Your task to perform on an android device: Open CNN.com Image 0: 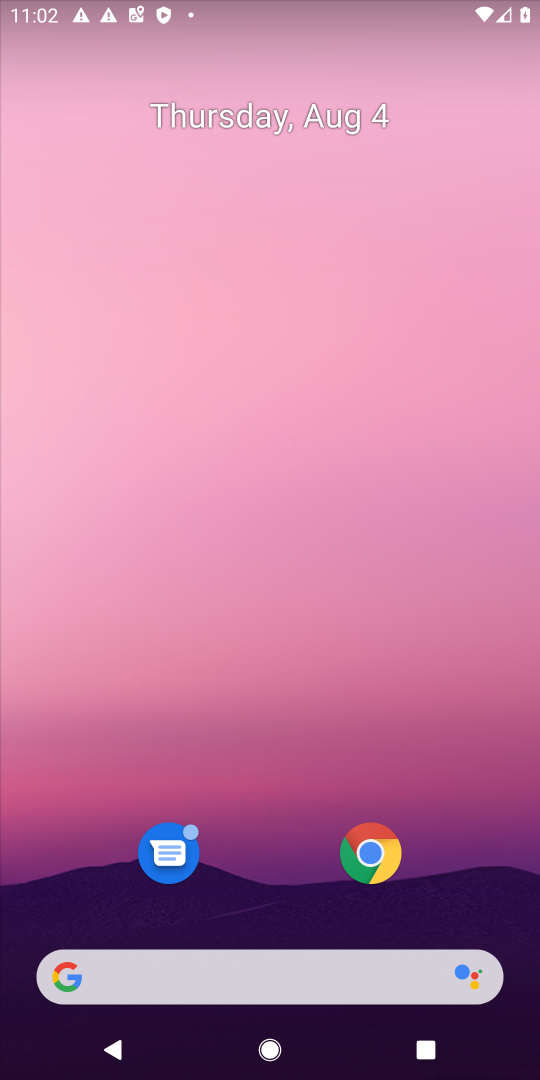
Step 0: drag from (457, 893) to (334, 56)
Your task to perform on an android device: Open CNN.com Image 1: 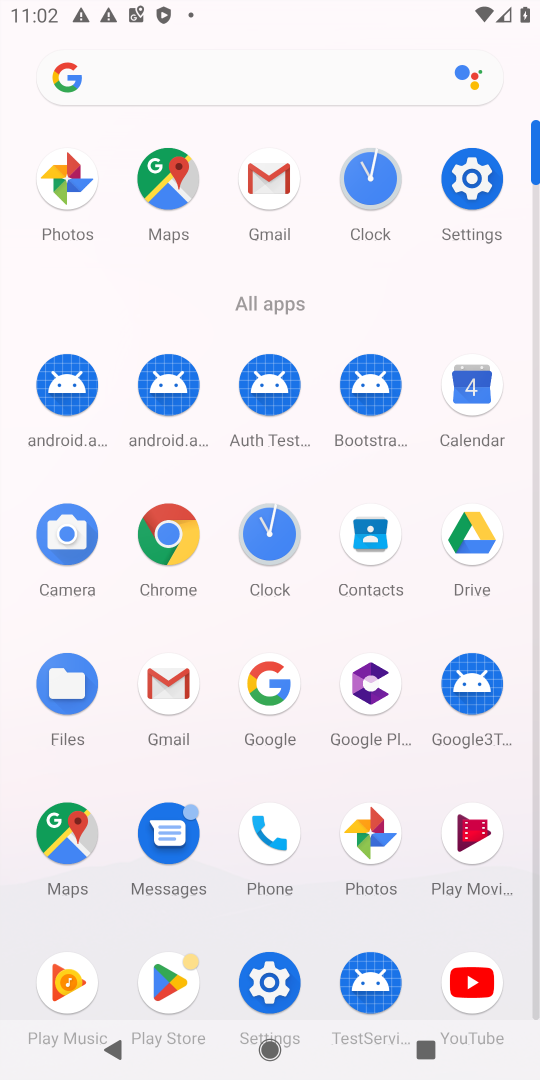
Step 1: click (171, 536)
Your task to perform on an android device: Open CNN.com Image 2: 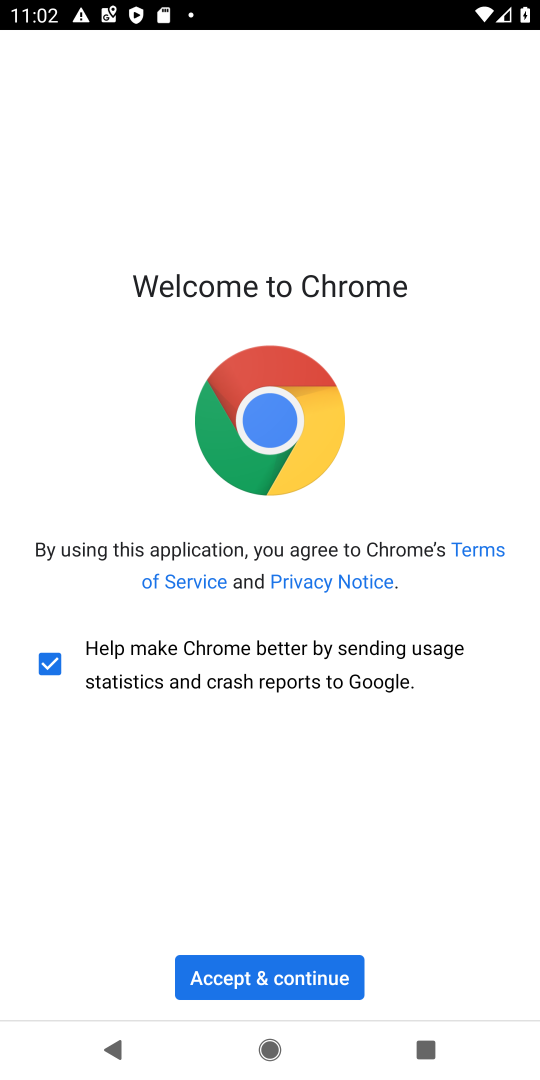
Step 2: click (227, 992)
Your task to perform on an android device: Open CNN.com Image 3: 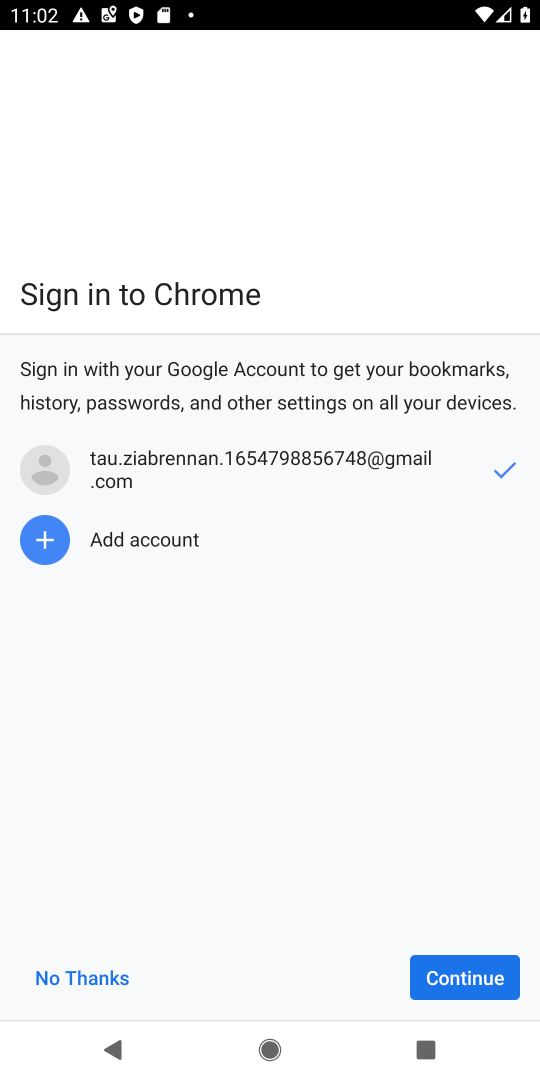
Step 3: click (442, 982)
Your task to perform on an android device: Open CNN.com Image 4: 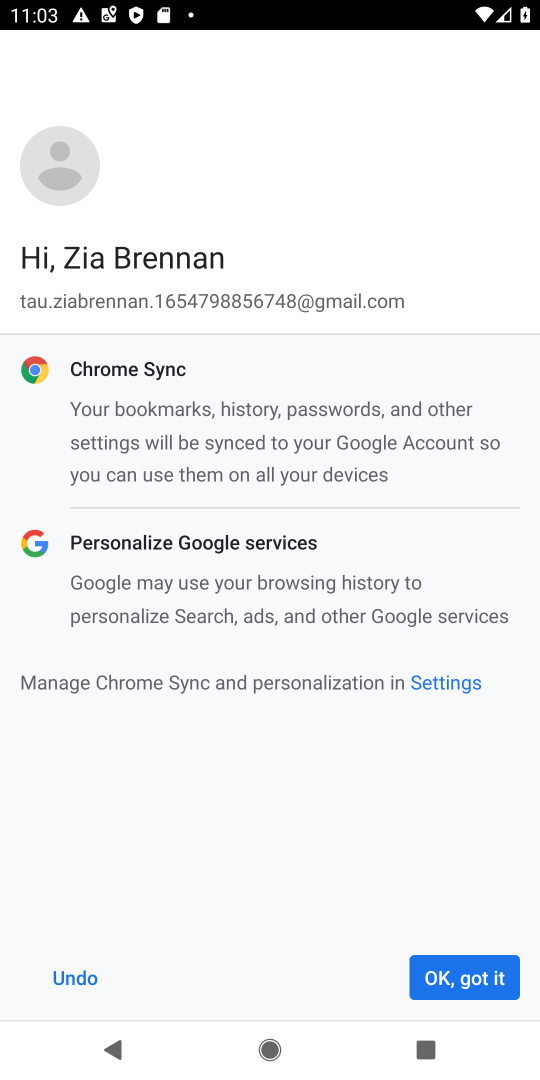
Step 4: click (442, 982)
Your task to perform on an android device: Open CNN.com Image 5: 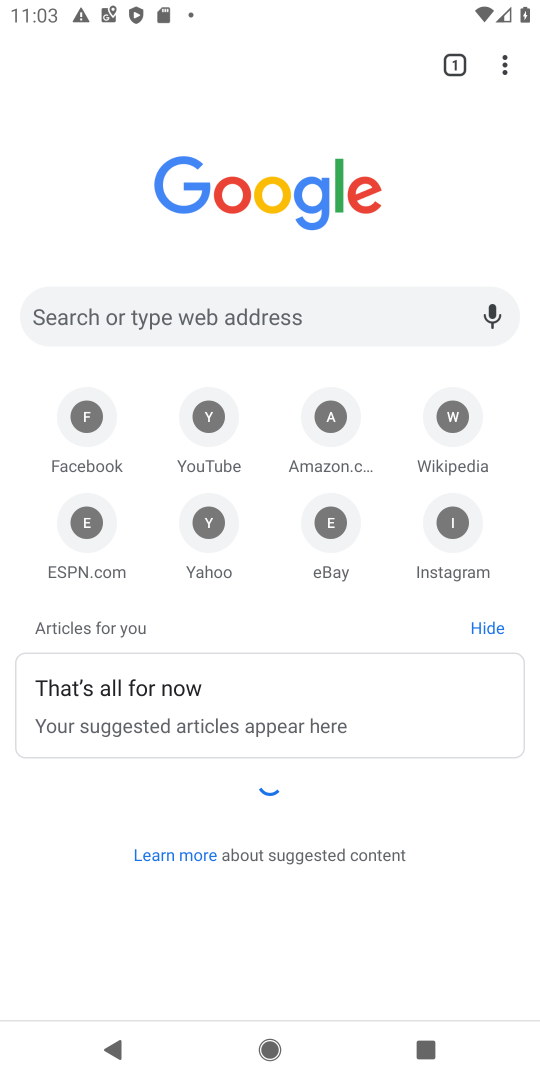
Step 5: click (442, 982)
Your task to perform on an android device: Open CNN.com Image 6: 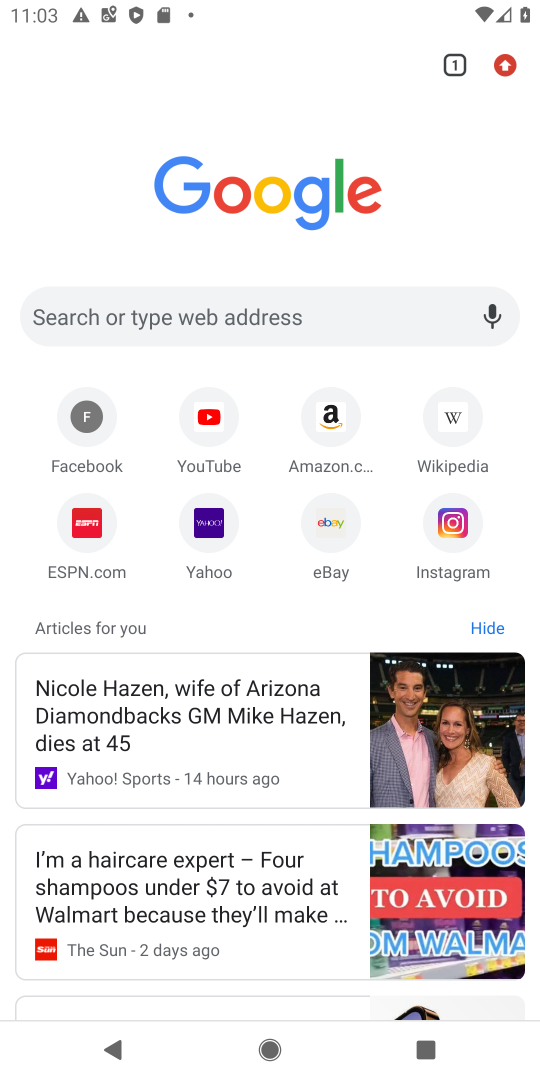
Step 6: click (304, 313)
Your task to perform on an android device: Open CNN.com Image 7: 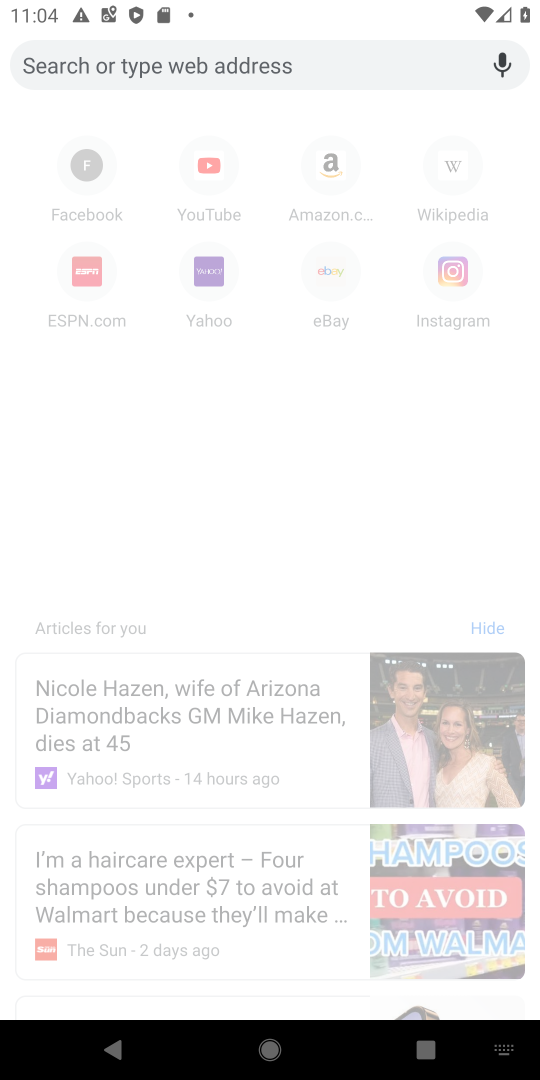
Step 7: type "cnn.com"
Your task to perform on an android device: Open CNN.com Image 8: 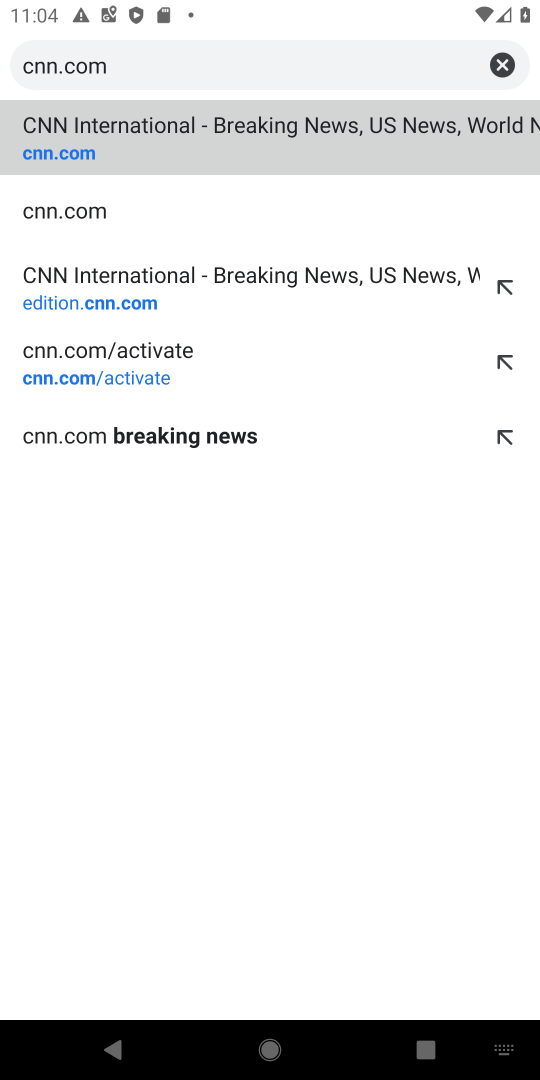
Step 8: click (72, 154)
Your task to perform on an android device: Open CNN.com Image 9: 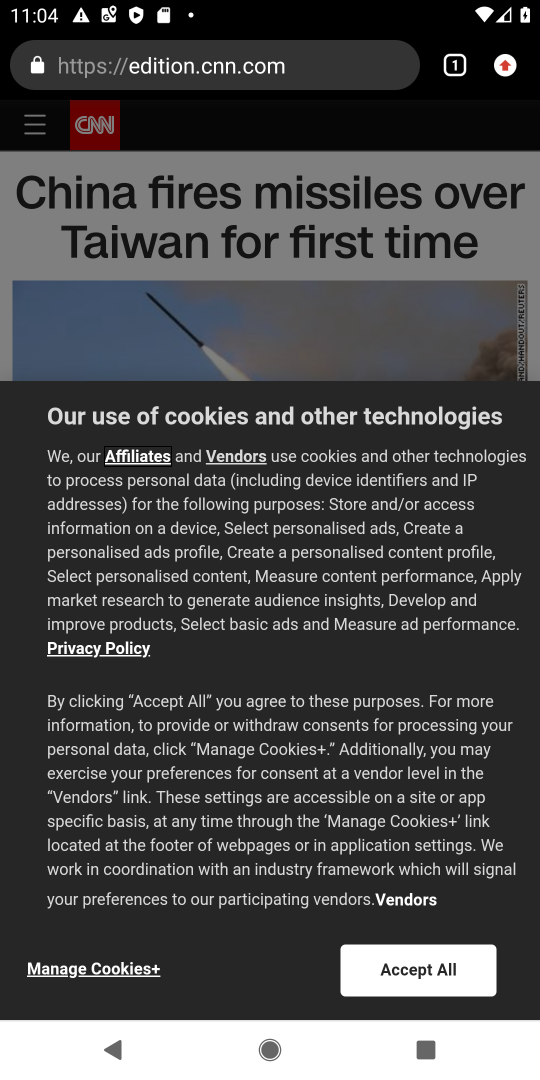
Step 9: task complete